Your task to perform on an android device: empty trash in the gmail app Image 0: 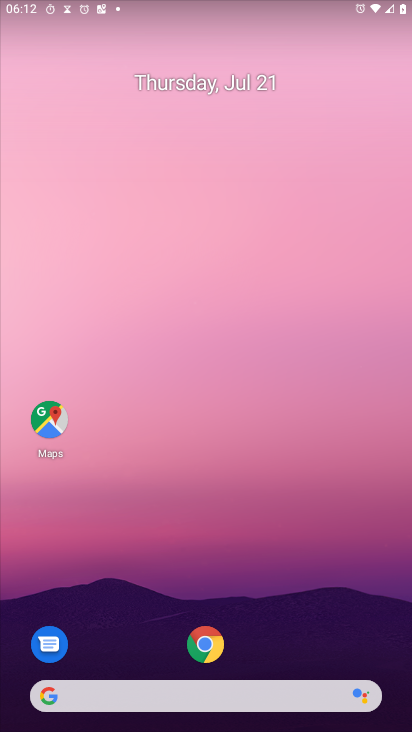
Step 0: press home button
Your task to perform on an android device: empty trash in the gmail app Image 1: 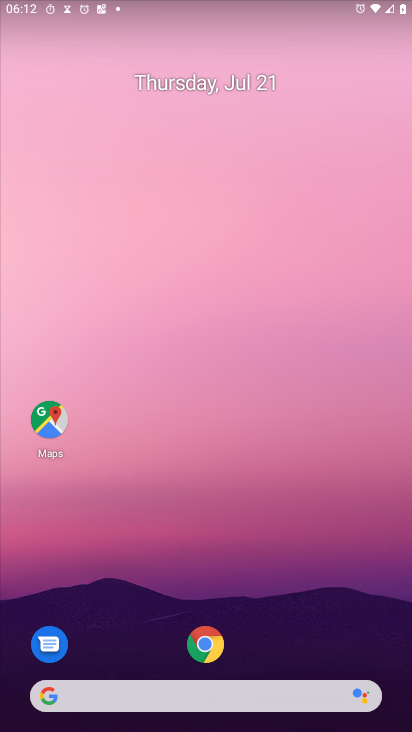
Step 1: drag from (293, 630) to (283, 7)
Your task to perform on an android device: empty trash in the gmail app Image 2: 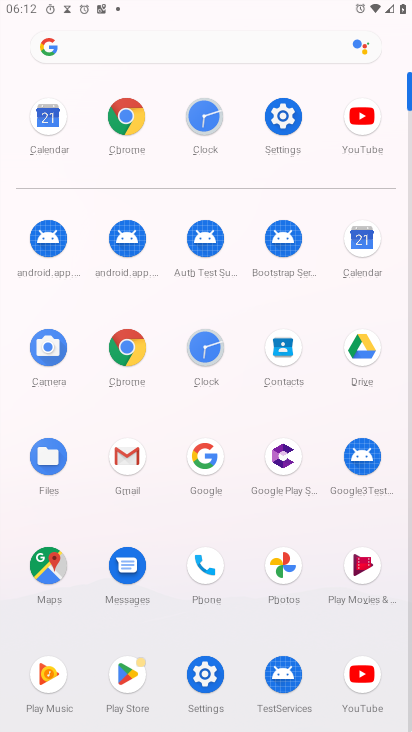
Step 2: click (122, 460)
Your task to perform on an android device: empty trash in the gmail app Image 3: 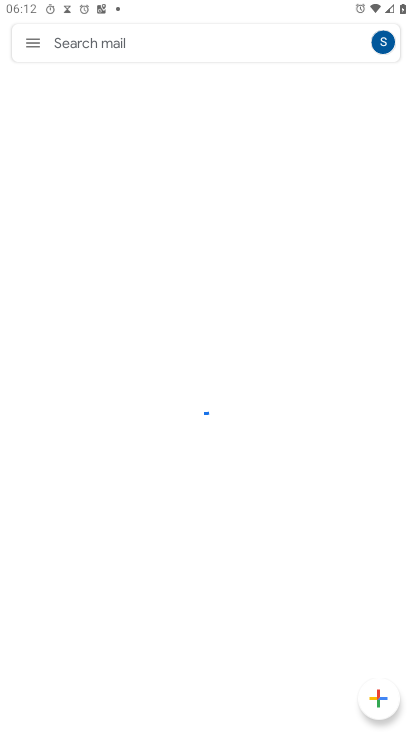
Step 3: click (41, 43)
Your task to perform on an android device: empty trash in the gmail app Image 4: 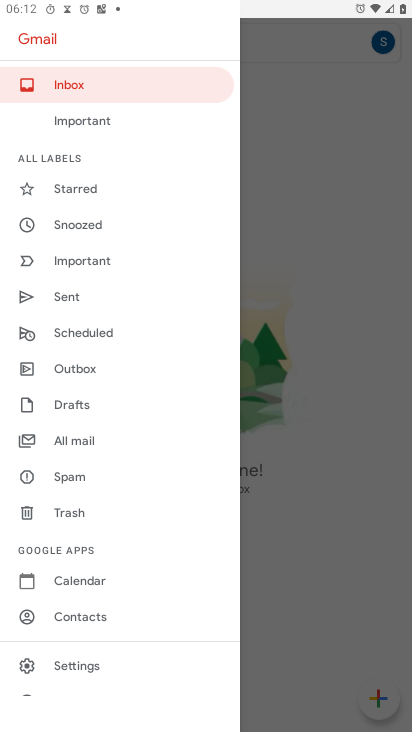
Step 4: click (67, 512)
Your task to perform on an android device: empty trash in the gmail app Image 5: 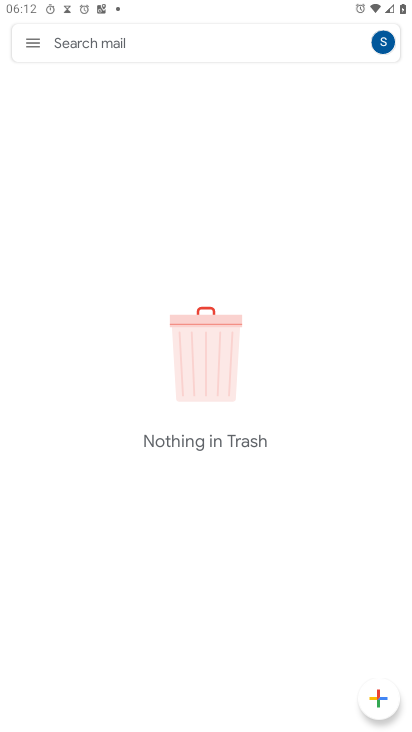
Step 5: task complete